Your task to perform on an android device: Open sound settings Image 0: 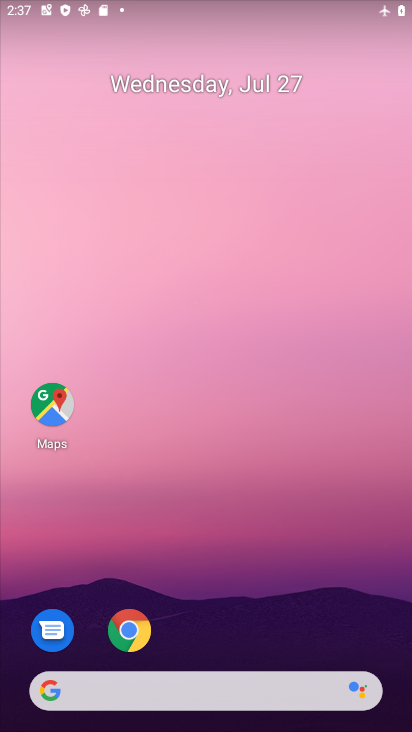
Step 0: drag from (392, 684) to (360, 201)
Your task to perform on an android device: Open sound settings Image 1: 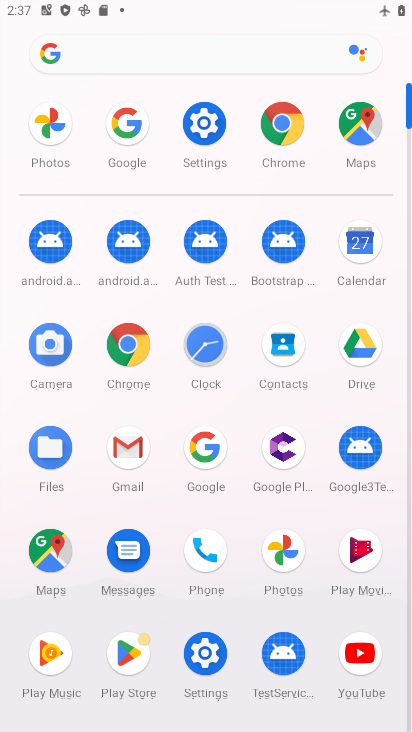
Step 1: click (203, 124)
Your task to perform on an android device: Open sound settings Image 2: 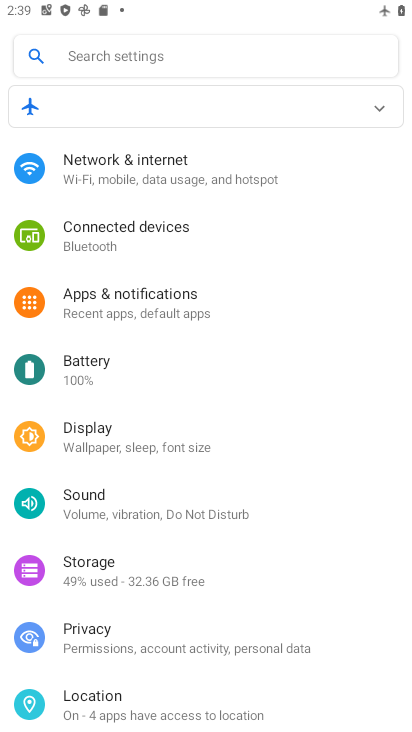
Step 2: click (138, 499)
Your task to perform on an android device: Open sound settings Image 3: 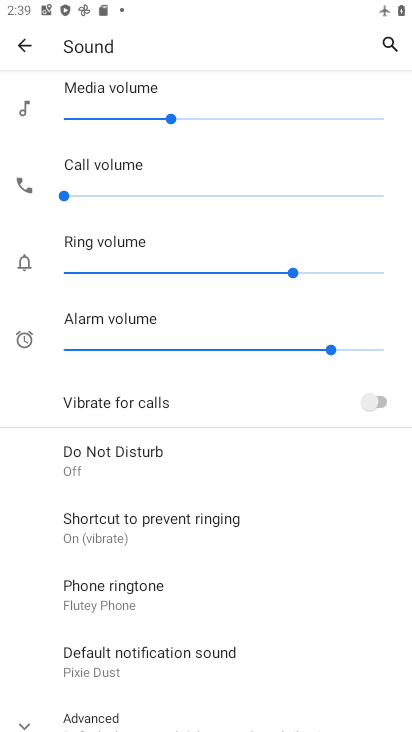
Step 3: task complete